Your task to perform on an android device: Go to Android settings Image 0: 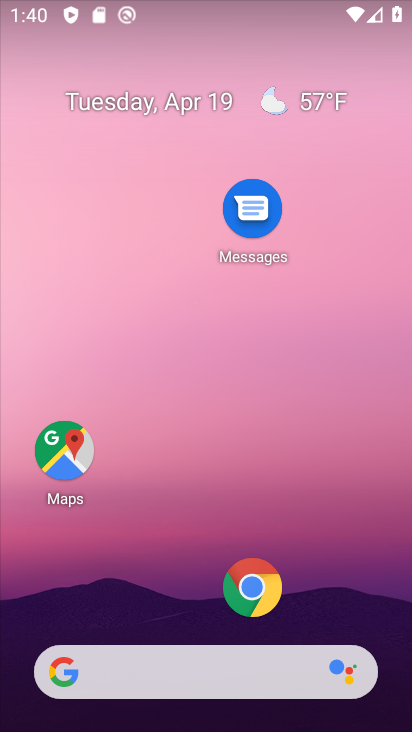
Step 0: drag from (126, 528) to (154, 63)
Your task to perform on an android device: Go to Android settings Image 1: 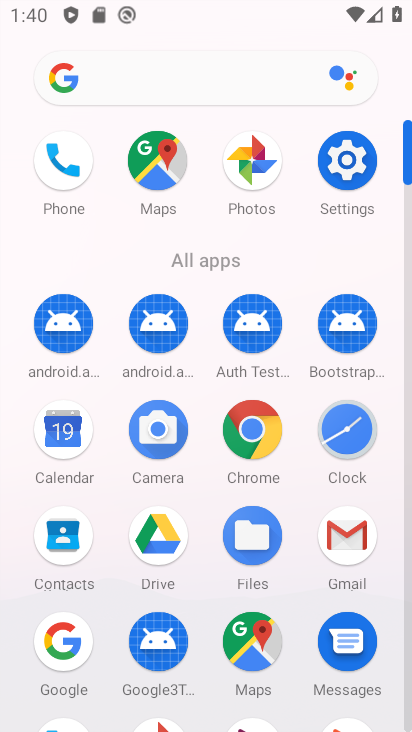
Step 1: click (350, 165)
Your task to perform on an android device: Go to Android settings Image 2: 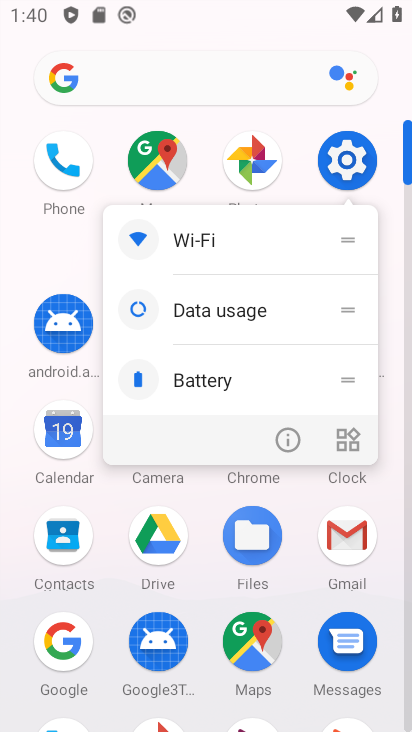
Step 2: click (350, 165)
Your task to perform on an android device: Go to Android settings Image 3: 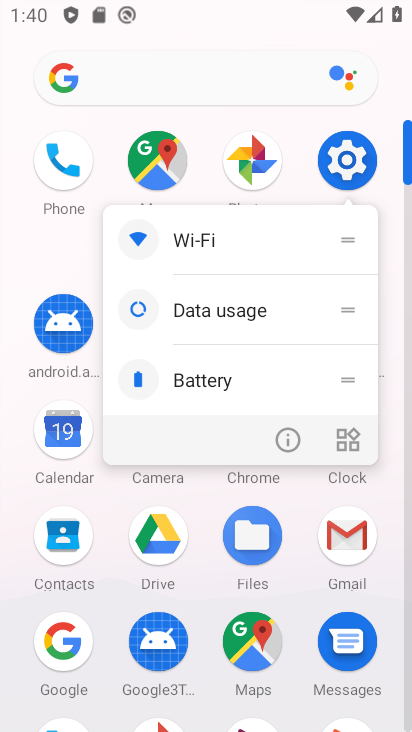
Step 3: click (345, 157)
Your task to perform on an android device: Go to Android settings Image 4: 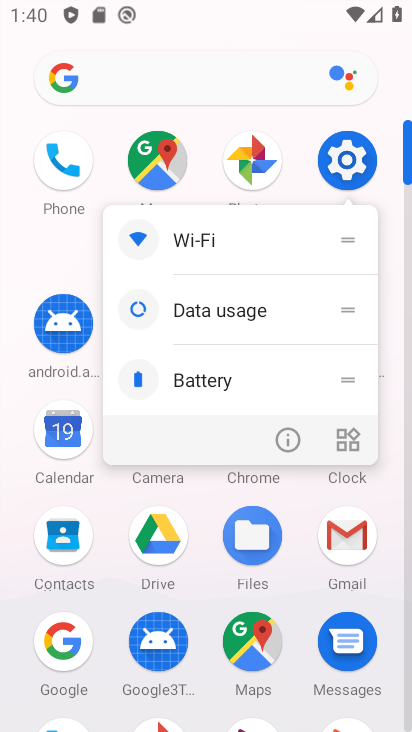
Step 4: click (350, 163)
Your task to perform on an android device: Go to Android settings Image 5: 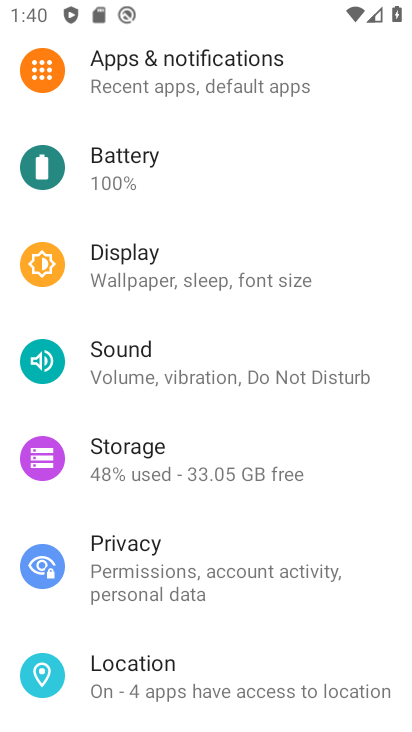
Step 5: task complete